Your task to perform on an android device: Open calendar and show me the first week of next month Image 0: 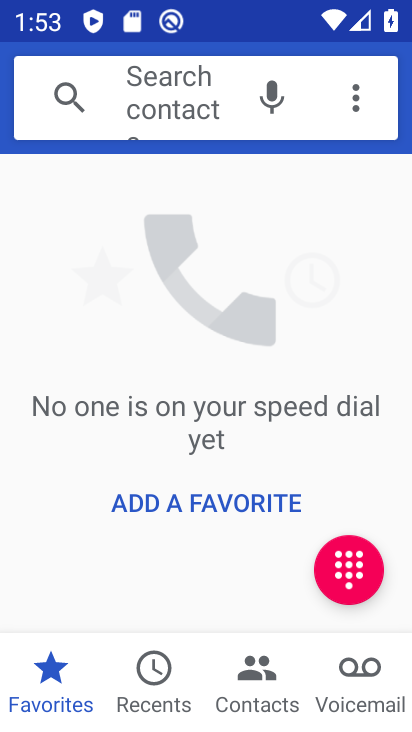
Step 0: press home button
Your task to perform on an android device: Open calendar and show me the first week of next month Image 1: 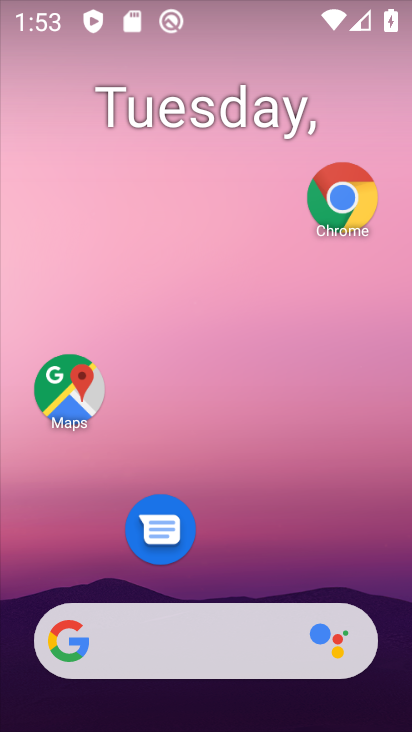
Step 1: drag from (215, 457) to (263, 16)
Your task to perform on an android device: Open calendar and show me the first week of next month Image 2: 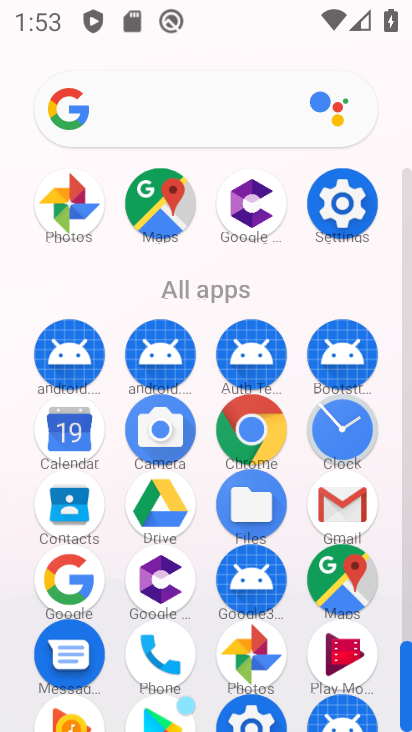
Step 2: click (70, 441)
Your task to perform on an android device: Open calendar and show me the first week of next month Image 3: 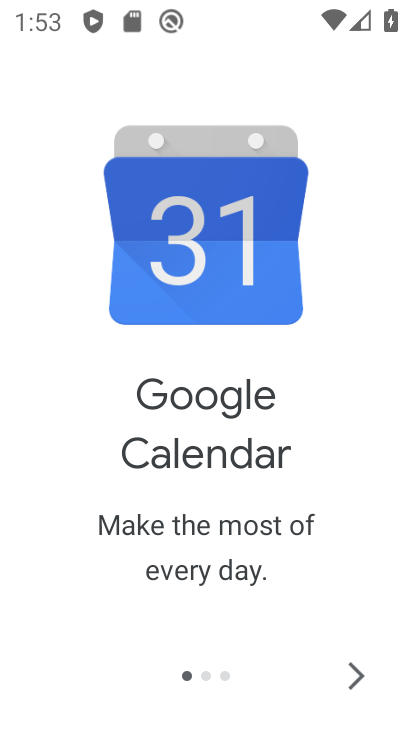
Step 3: click (361, 662)
Your task to perform on an android device: Open calendar and show me the first week of next month Image 4: 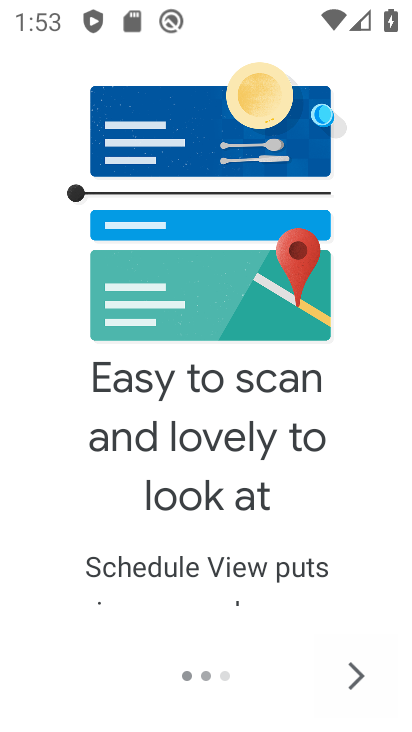
Step 4: click (361, 662)
Your task to perform on an android device: Open calendar and show me the first week of next month Image 5: 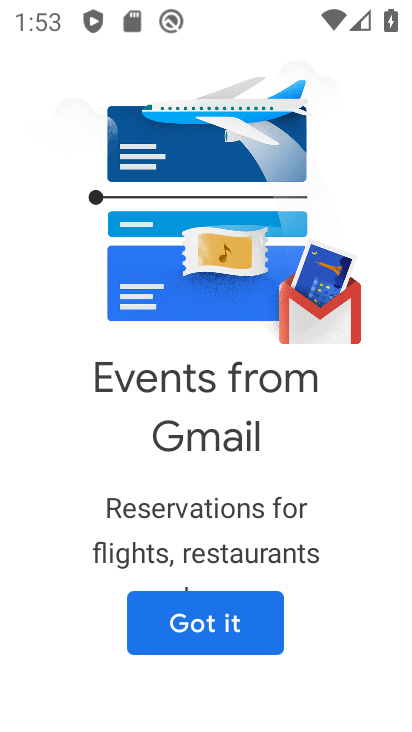
Step 5: click (239, 625)
Your task to perform on an android device: Open calendar and show me the first week of next month Image 6: 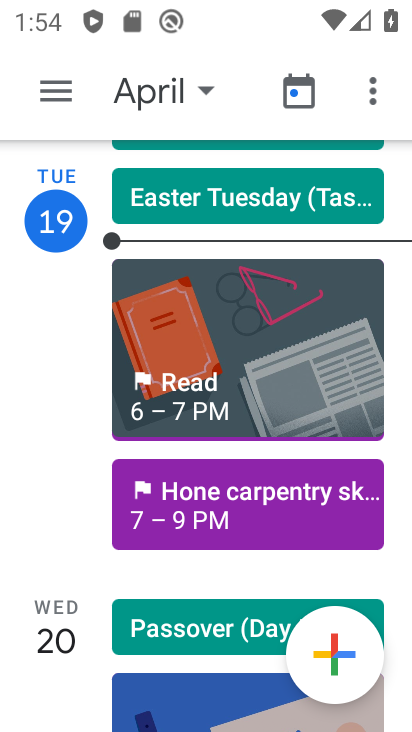
Step 6: click (205, 84)
Your task to perform on an android device: Open calendar and show me the first week of next month Image 7: 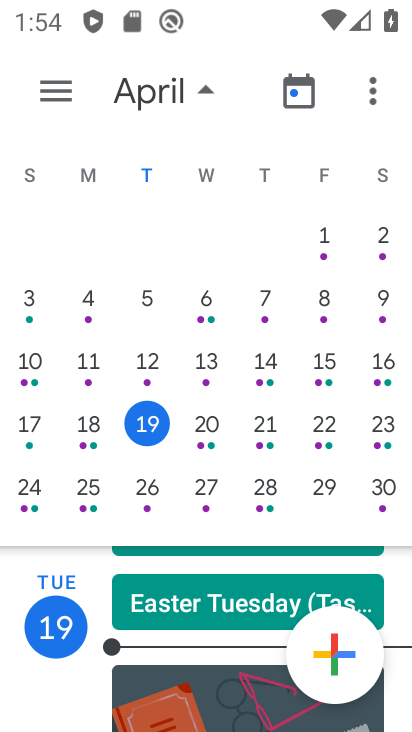
Step 7: drag from (339, 369) to (12, 328)
Your task to perform on an android device: Open calendar and show me the first week of next month Image 8: 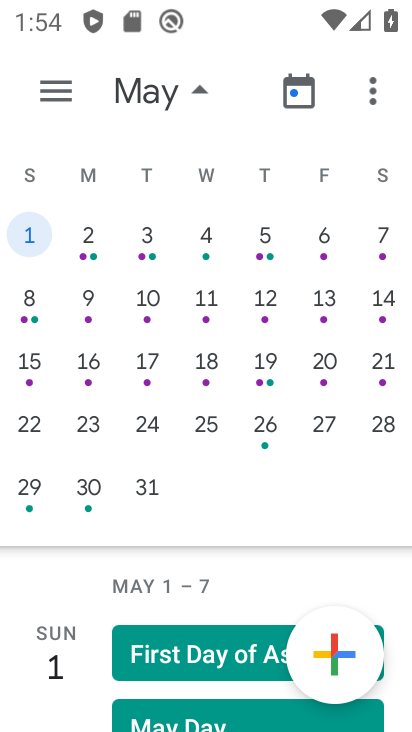
Step 8: click (81, 231)
Your task to perform on an android device: Open calendar and show me the first week of next month Image 9: 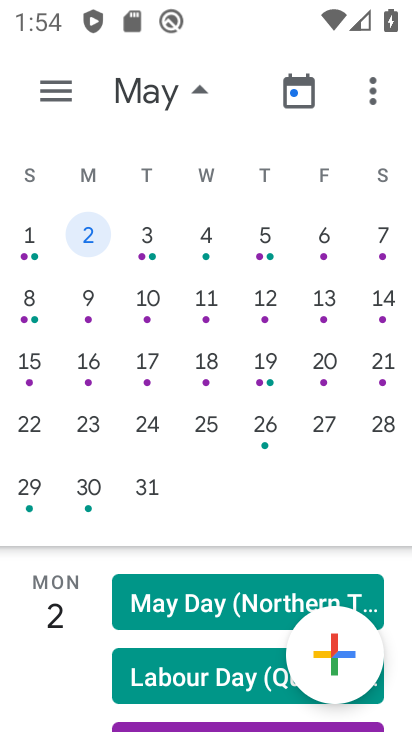
Step 9: task complete